Your task to perform on an android device: turn on translation in the chrome app Image 0: 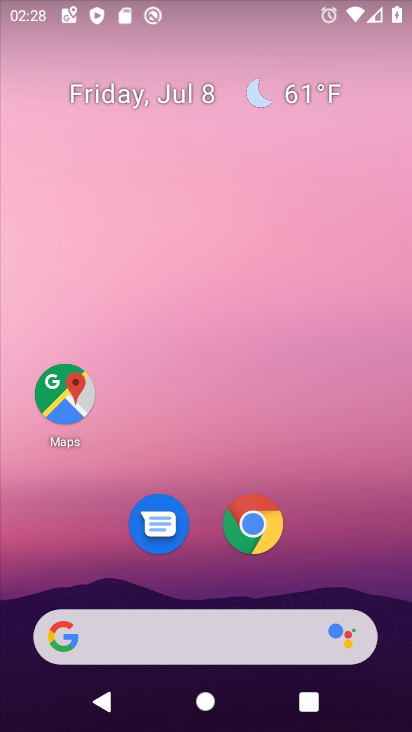
Step 0: click (272, 513)
Your task to perform on an android device: turn on translation in the chrome app Image 1: 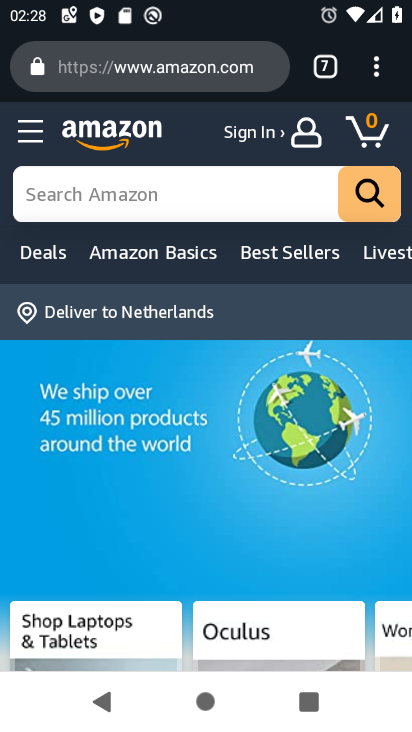
Step 1: click (382, 66)
Your task to perform on an android device: turn on translation in the chrome app Image 2: 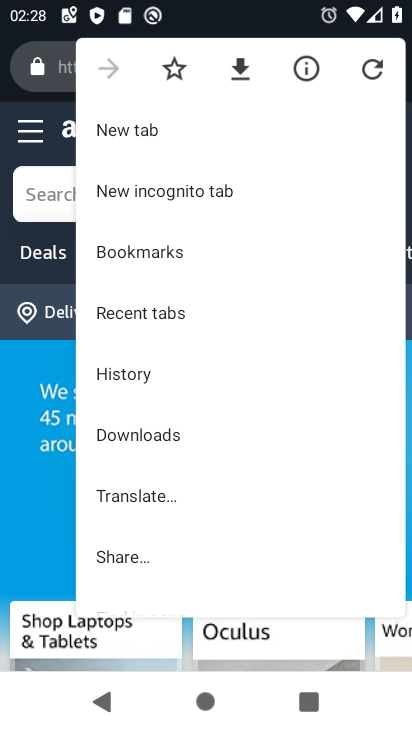
Step 2: drag from (226, 484) to (233, 211)
Your task to perform on an android device: turn on translation in the chrome app Image 3: 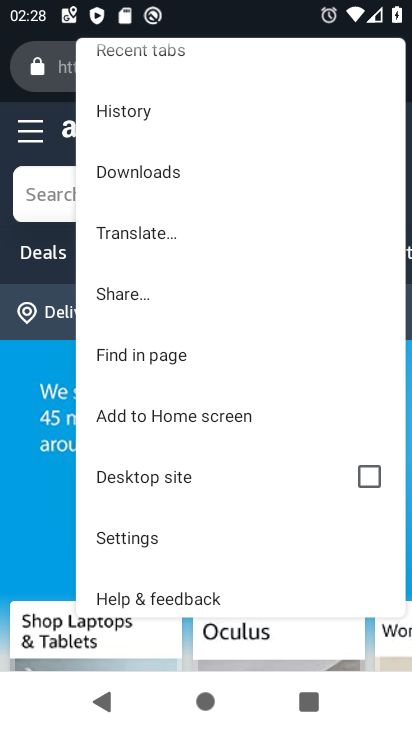
Step 3: click (148, 534)
Your task to perform on an android device: turn on translation in the chrome app Image 4: 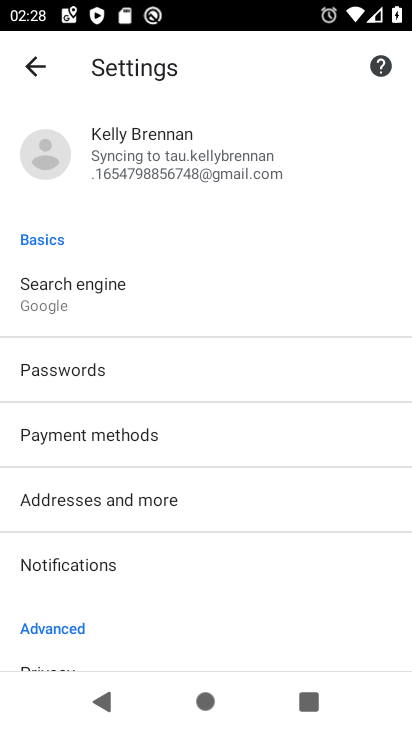
Step 4: drag from (270, 563) to (267, 14)
Your task to perform on an android device: turn on translation in the chrome app Image 5: 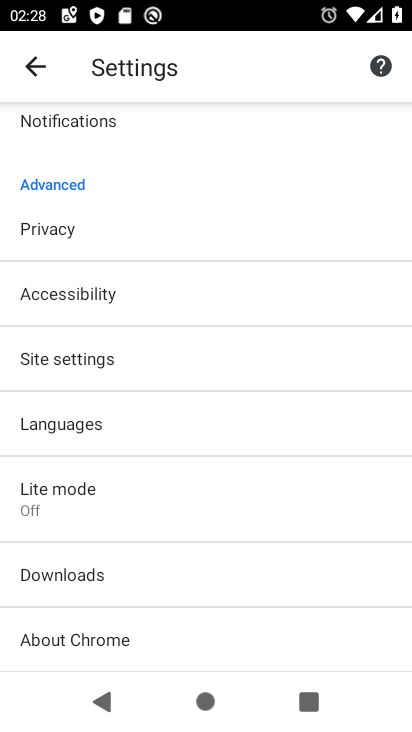
Step 5: click (105, 426)
Your task to perform on an android device: turn on translation in the chrome app Image 6: 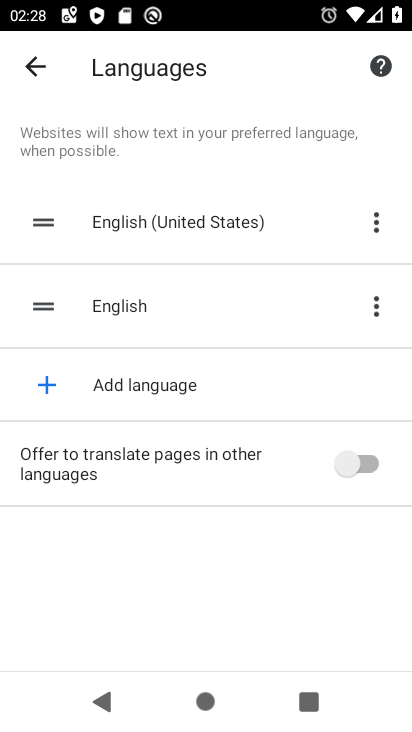
Step 6: click (365, 459)
Your task to perform on an android device: turn on translation in the chrome app Image 7: 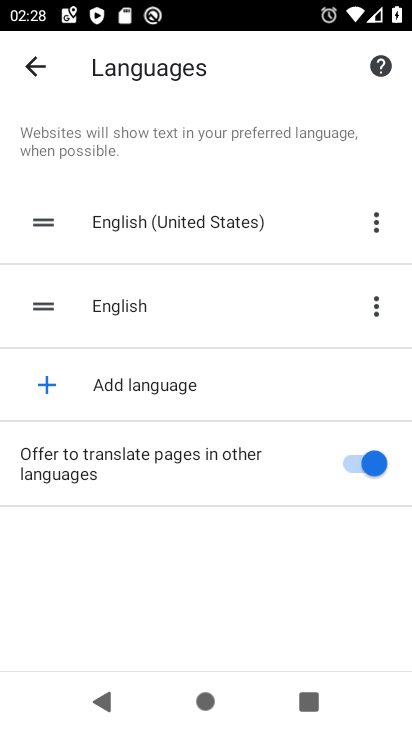
Step 7: task complete